Your task to perform on an android device: choose inbox layout in the gmail app Image 0: 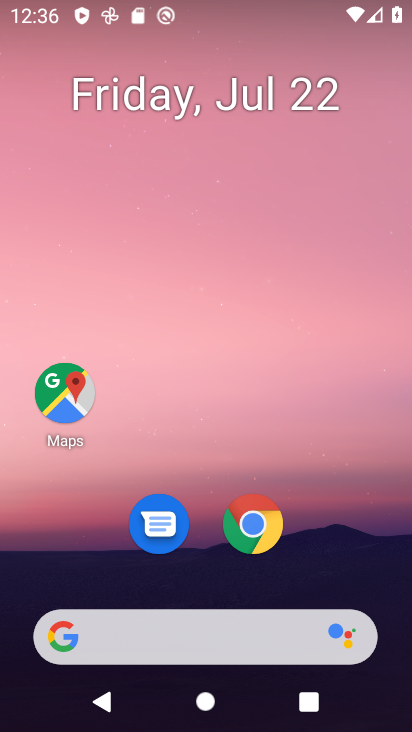
Step 0: drag from (182, 629) to (319, 134)
Your task to perform on an android device: choose inbox layout in the gmail app Image 1: 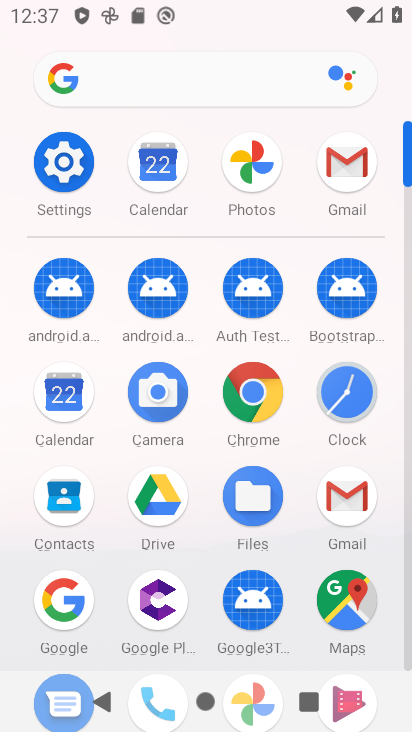
Step 1: click (343, 178)
Your task to perform on an android device: choose inbox layout in the gmail app Image 2: 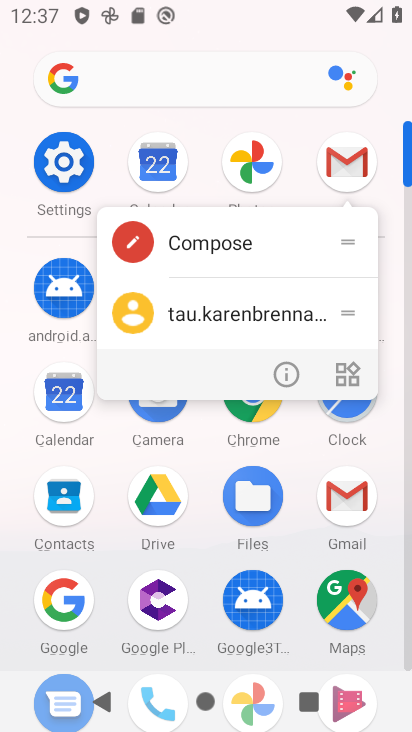
Step 2: click (348, 166)
Your task to perform on an android device: choose inbox layout in the gmail app Image 3: 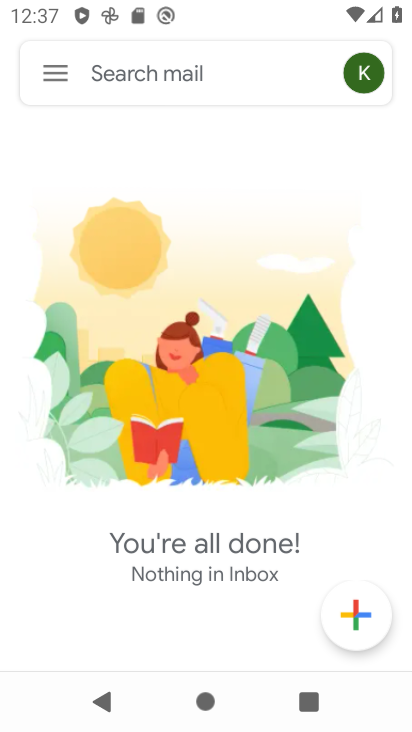
Step 3: click (62, 69)
Your task to perform on an android device: choose inbox layout in the gmail app Image 4: 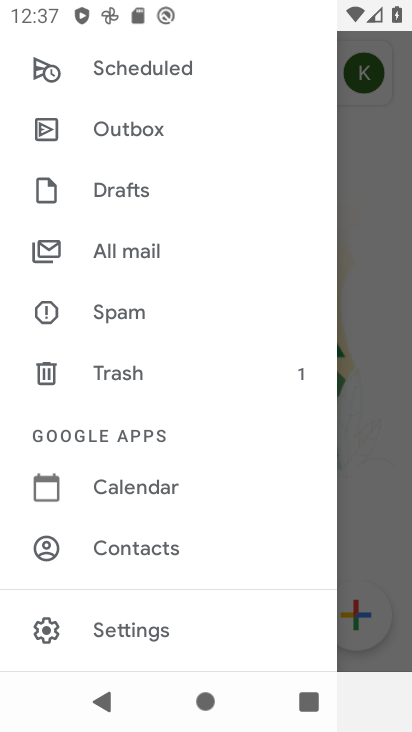
Step 4: click (138, 631)
Your task to perform on an android device: choose inbox layout in the gmail app Image 5: 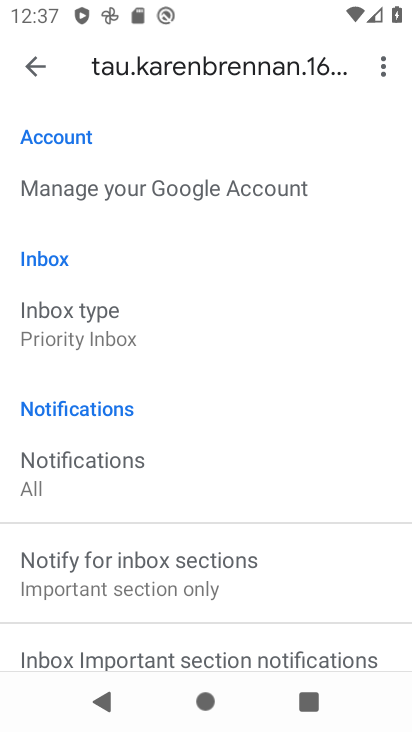
Step 5: click (113, 335)
Your task to perform on an android device: choose inbox layout in the gmail app Image 6: 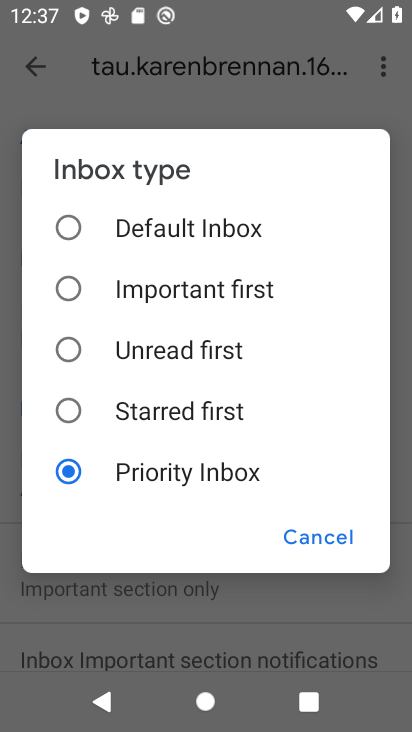
Step 6: click (66, 283)
Your task to perform on an android device: choose inbox layout in the gmail app Image 7: 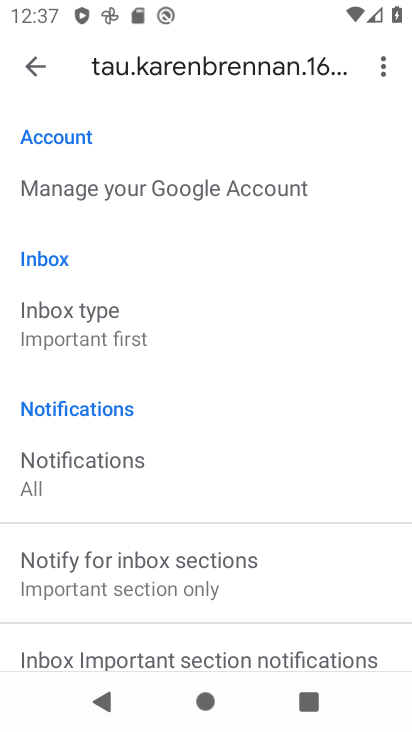
Step 7: task complete